Your task to perform on an android device: toggle pop-ups in chrome Image 0: 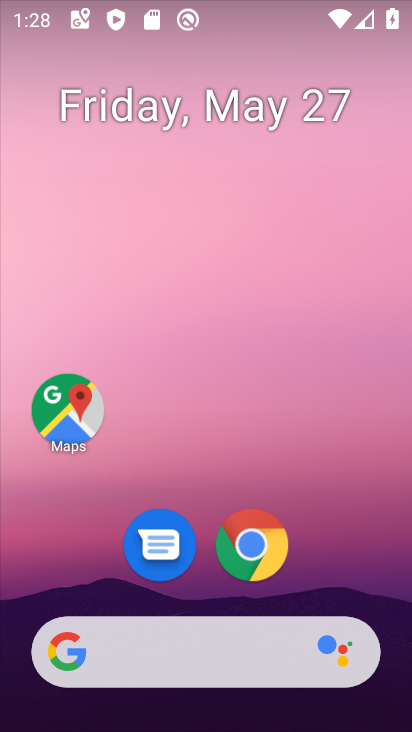
Step 0: click (263, 552)
Your task to perform on an android device: toggle pop-ups in chrome Image 1: 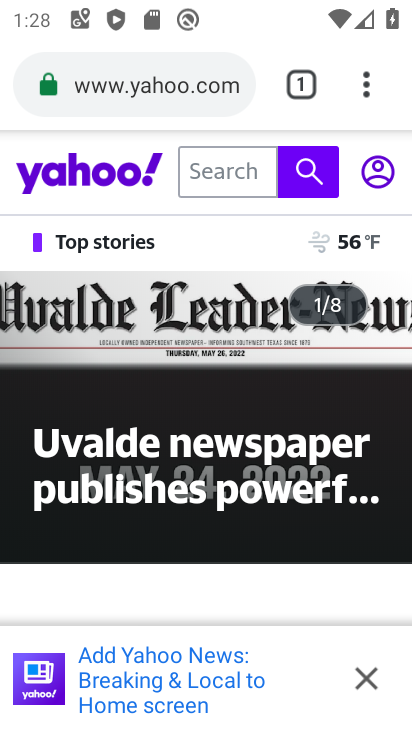
Step 1: click (371, 71)
Your task to perform on an android device: toggle pop-ups in chrome Image 2: 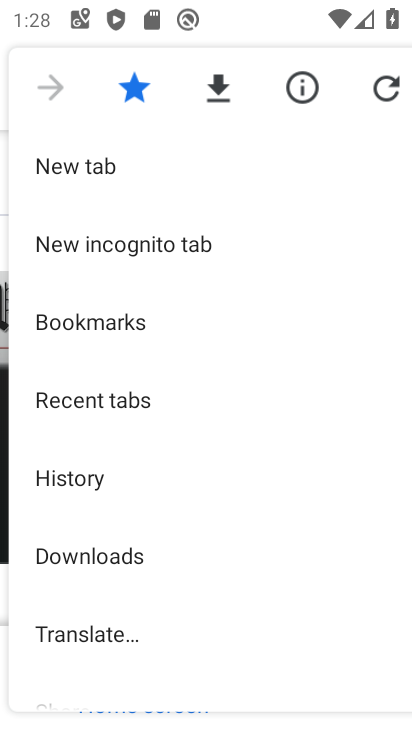
Step 2: drag from (261, 570) to (163, 55)
Your task to perform on an android device: toggle pop-ups in chrome Image 3: 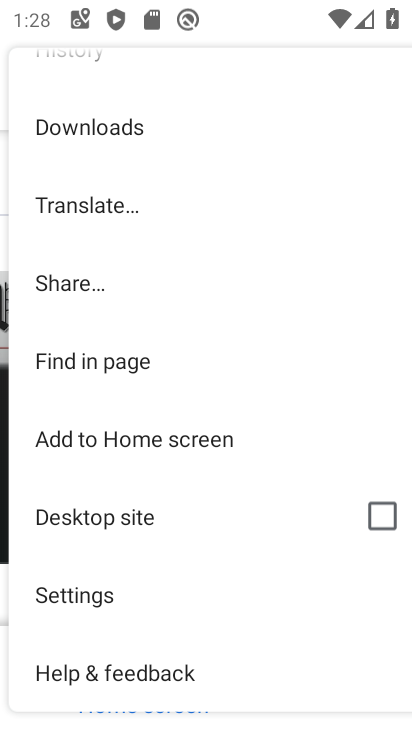
Step 3: click (183, 598)
Your task to perform on an android device: toggle pop-ups in chrome Image 4: 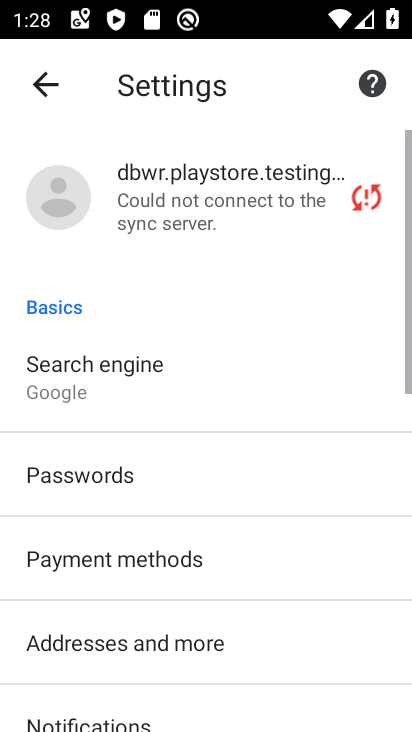
Step 4: drag from (236, 333) to (228, 95)
Your task to perform on an android device: toggle pop-ups in chrome Image 5: 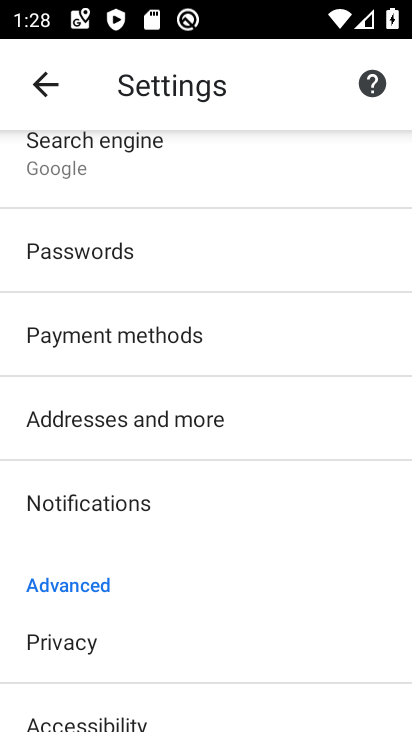
Step 5: drag from (183, 589) to (149, 252)
Your task to perform on an android device: toggle pop-ups in chrome Image 6: 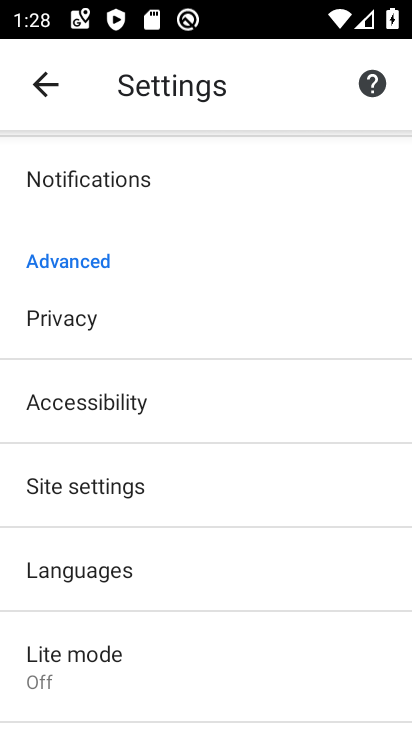
Step 6: click (145, 487)
Your task to perform on an android device: toggle pop-ups in chrome Image 7: 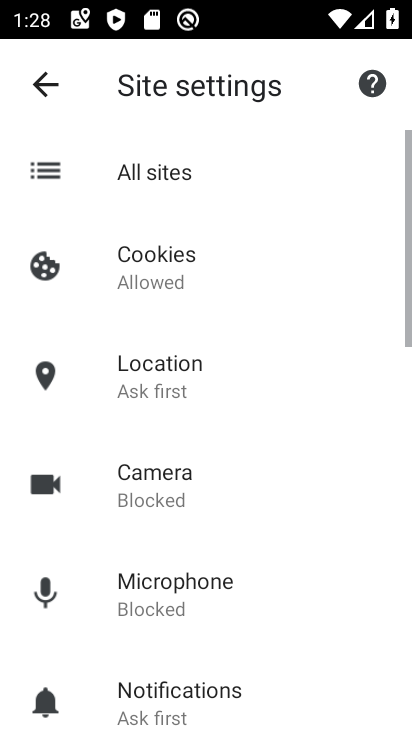
Step 7: drag from (246, 602) to (225, 189)
Your task to perform on an android device: toggle pop-ups in chrome Image 8: 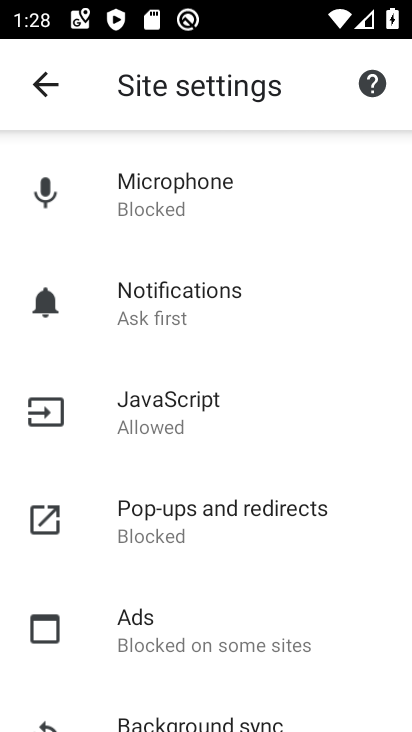
Step 8: click (241, 505)
Your task to perform on an android device: toggle pop-ups in chrome Image 9: 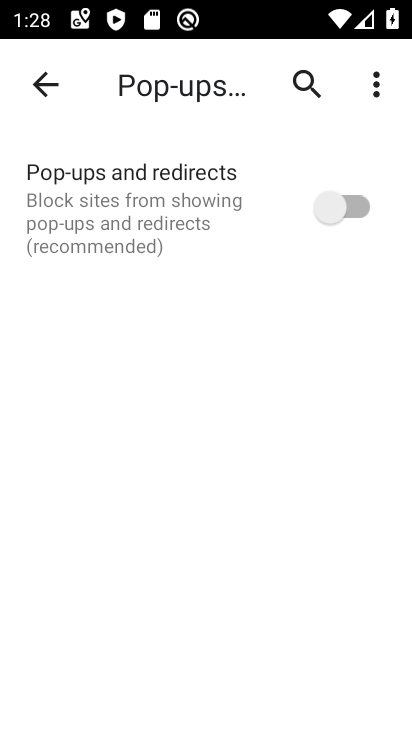
Step 9: click (348, 193)
Your task to perform on an android device: toggle pop-ups in chrome Image 10: 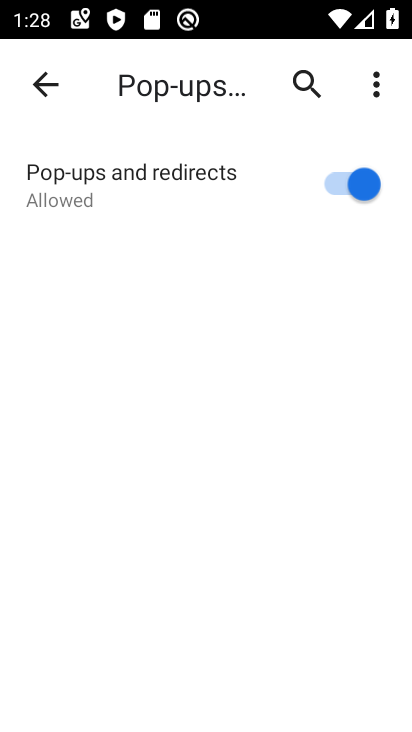
Step 10: task complete